Your task to perform on an android device: Empty the shopping cart on bestbuy.com. Add "lg ultragear" to the cart on bestbuy.com Image 0: 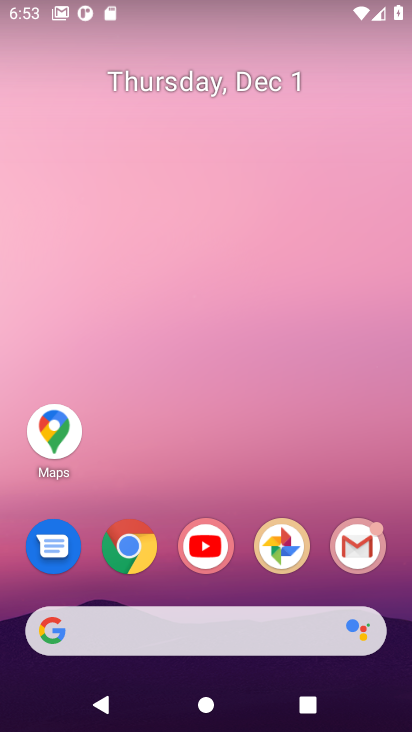
Step 0: click (127, 560)
Your task to perform on an android device: Empty the shopping cart on bestbuy.com. Add "lg ultragear" to the cart on bestbuy.com Image 1: 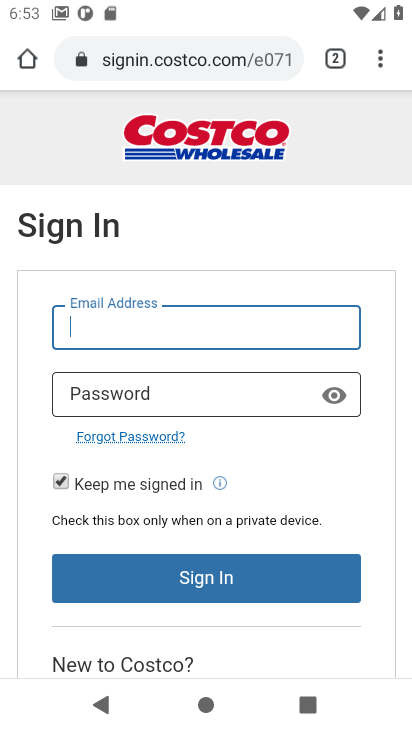
Step 1: click (197, 64)
Your task to perform on an android device: Empty the shopping cart on bestbuy.com. Add "lg ultragear" to the cart on bestbuy.com Image 2: 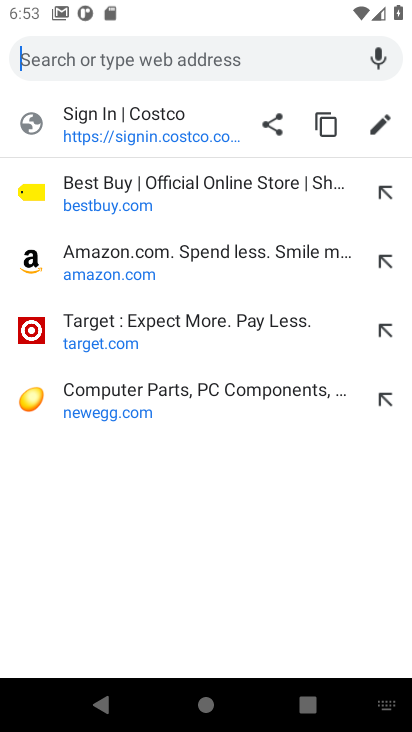
Step 2: click (83, 197)
Your task to perform on an android device: Empty the shopping cart on bestbuy.com. Add "lg ultragear" to the cart on bestbuy.com Image 3: 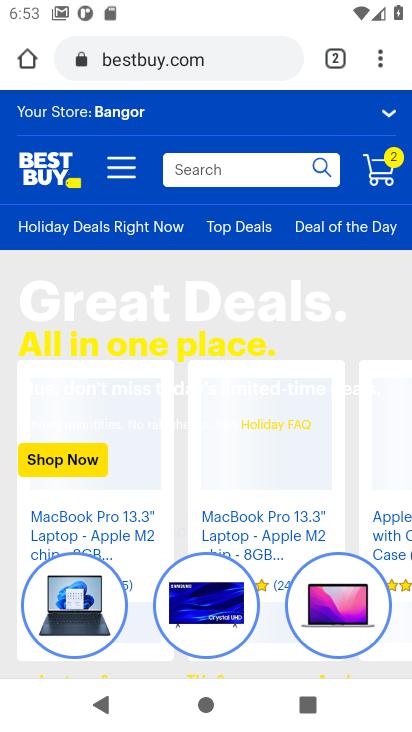
Step 3: click (380, 171)
Your task to perform on an android device: Empty the shopping cart on bestbuy.com. Add "lg ultragear" to the cart on bestbuy.com Image 4: 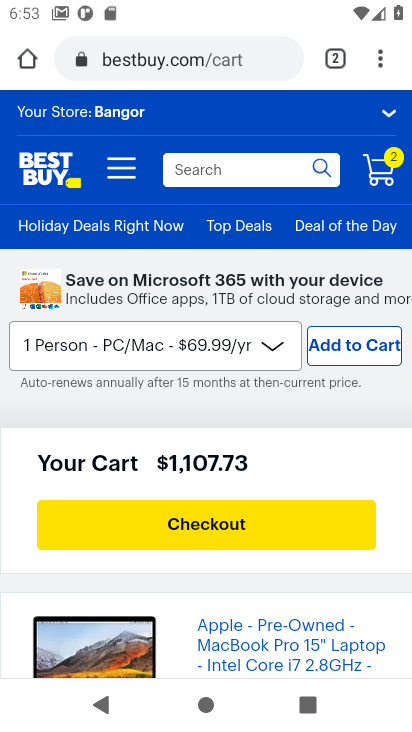
Step 4: drag from (259, 453) to (254, 193)
Your task to perform on an android device: Empty the shopping cart on bestbuy.com. Add "lg ultragear" to the cart on bestbuy.com Image 5: 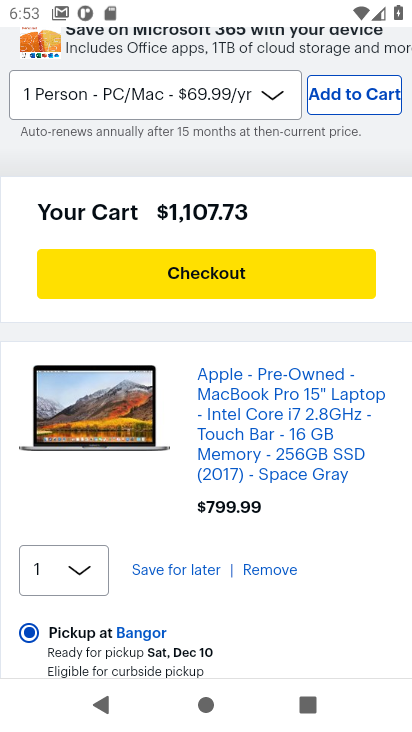
Step 5: drag from (310, 477) to (290, 263)
Your task to perform on an android device: Empty the shopping cart on bestbuy.com. Add "lg ultragear" to the cart on bestbuy.com Image 6: 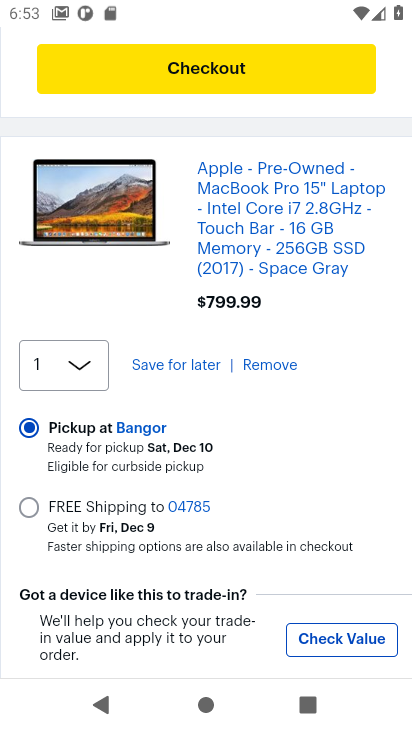
Step 6: click (267, 368)
Your task to perform on an android device: Empty the shopping cart on bestbuy.com. Add "lg ultragear" to the cart on bestbuy.com Image 7: 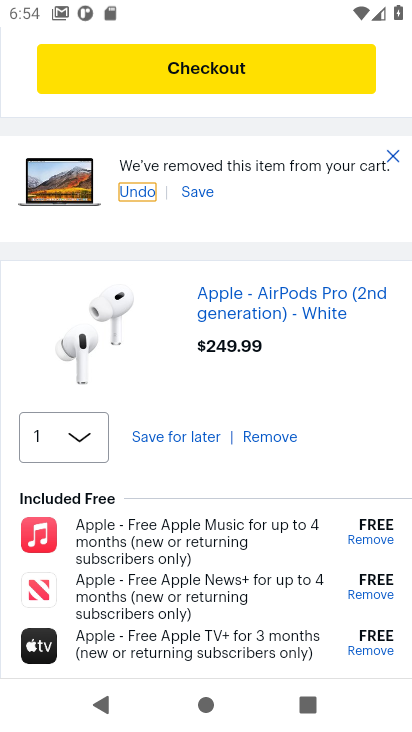
Step 7: click (271, 429)
Your task to perform on an android device: Empty the shopping cart on bestbuy.com. Add "lg ultragear" to the cart on bestbuy.com Image 8: 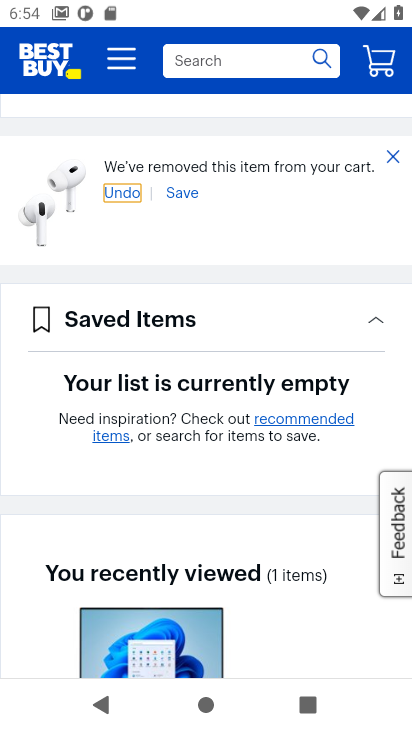
Step 8: click (183, 68)
Your task to perform on an android device: Empty the shopping cart on bestbuy.com. Add "lg ultragear" to the cart on bestbuy.com Image 9: 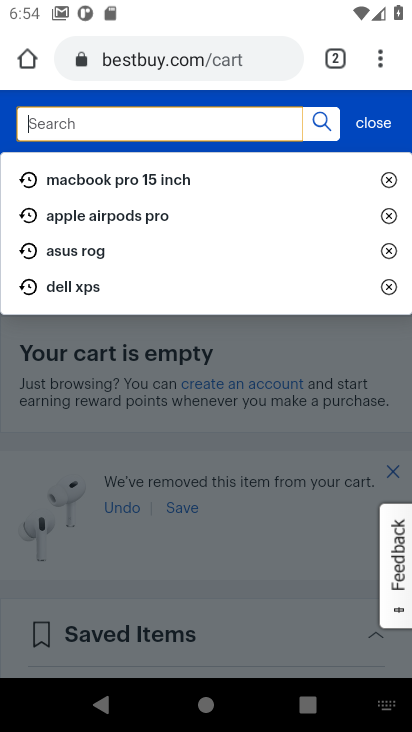
Step 9: type "lg ultragear"
Your task to perform on an android device: Empty the shopping cart on bestbuy.com. Add "lg ultragear" to the cart on bestbuy.com Image 10: 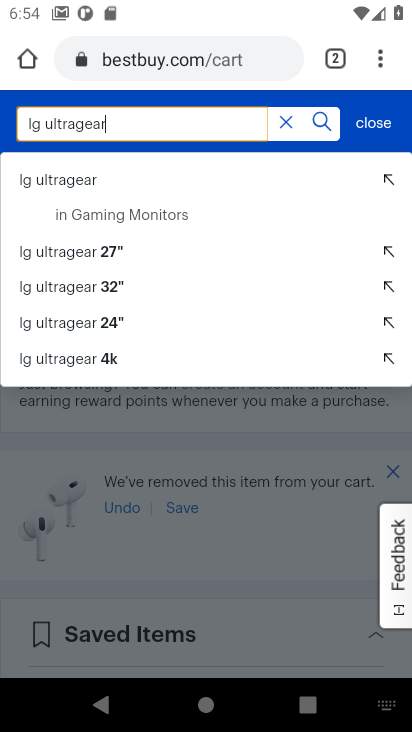
Step 10: click (71, 185)
Your task to perform on an android device: Empty the shopping cart on bestbuy.com. Add "lg ultragear" to the cart on bestbuy.com Image 11: 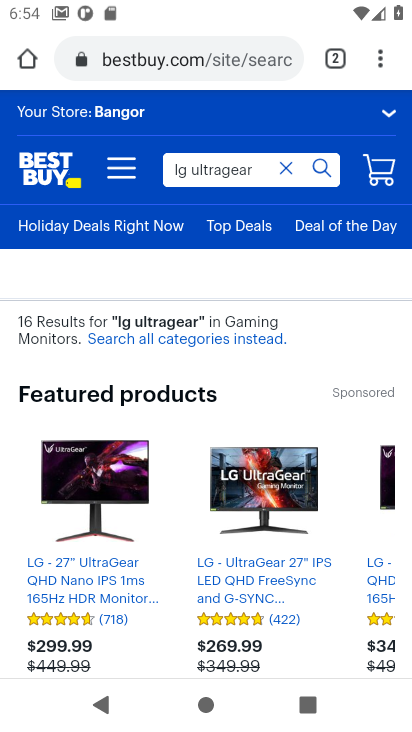
Step 11: drag from (165, 457) to (156, 272)
Your task to perform on an android device: Empty the shopping cart on bestbuy.com. Add "lg ultragear" to the cart on bestbuy.com Image 12: 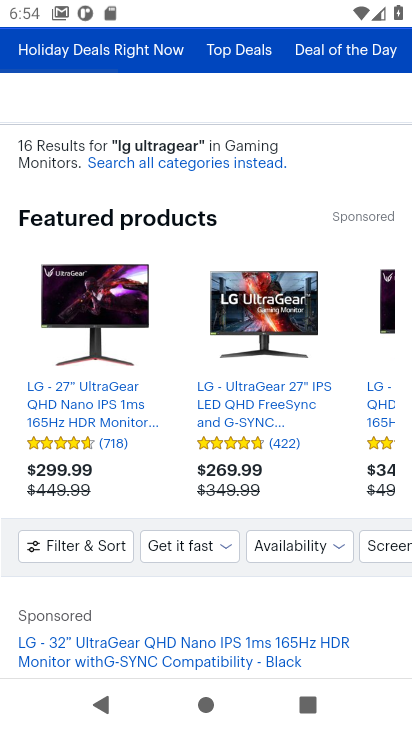
Step 12: drag from (151, 459) to (157, 209)
Your task to perform on an android device: Empty the shopping cart on bestbuy.com. Add "lg ultragear" to the cart on bestbuy.com Image 13: 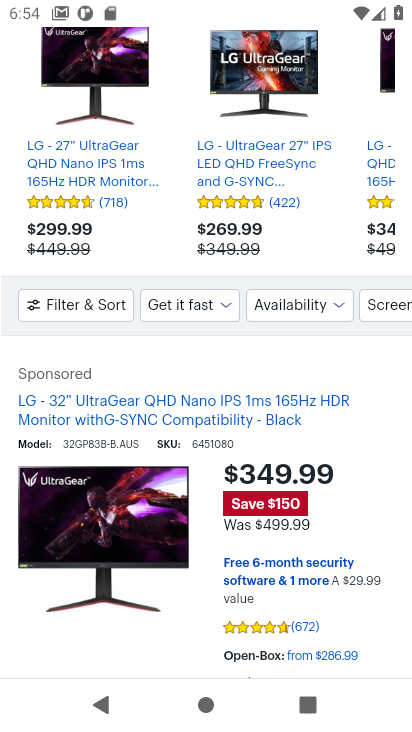
Step 13: drag from (342, 528) to (342, 390)
Your task to perform on an android device: Empty the shopping cart on bestbuy.com. Add "lg ultragear" to the cart on bestbuy.com Image 14: 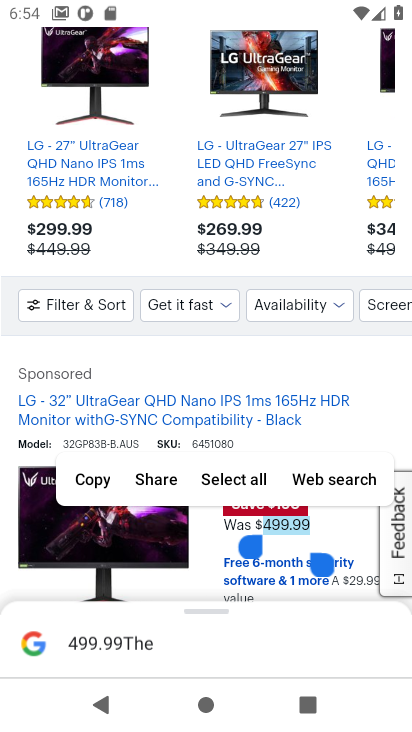
Step 14: drag from (157, 571) to (140, 422)
Your task to perform on an android device: Empty the shopping cart on bestbuy.com. Add "lg ultragear" to the cart on bestbuy.com Image 15: 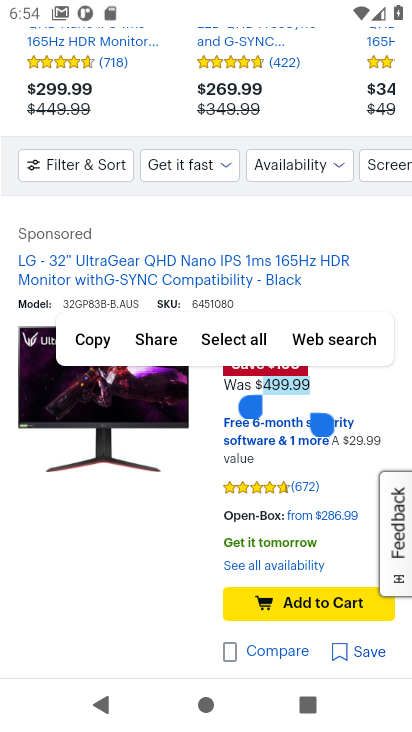
Step 15: click (286, 608)
Your task to perform on an android device: Empty the shopping cart on bestbuy.com. Add "lg ultragear" to the cart on bestbuy.com Image 16: 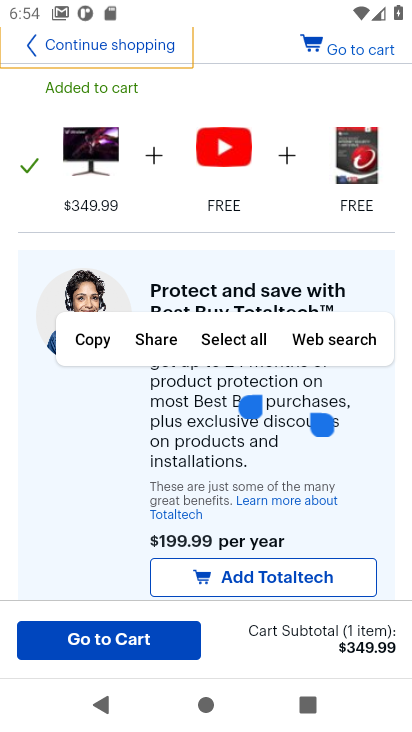
Step 16: task complete